Your task to perform on an android device: toggle wifi Image 0: 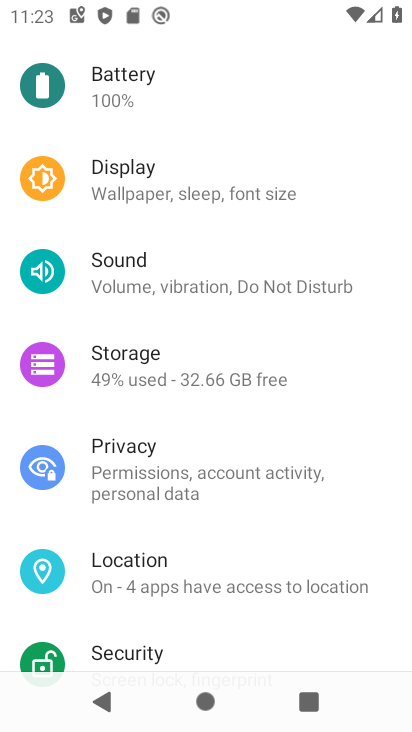
Step 0: drag from (233, 268) to (239, 508)
Your task to perform on an android device: toggle wifi Image 1: 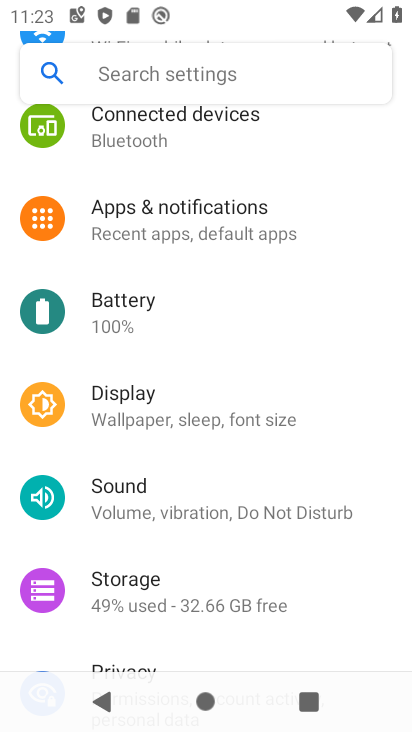
Step 1: drag from (219, 209) to (238, 492)
Your task to perform on an android device: toggle wifi Image 2: 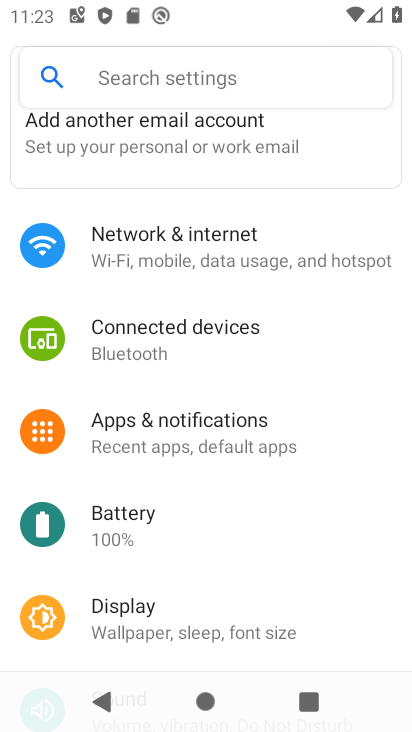
Step 2: click (232, 255)
Your task to perform on an android device: toggle wifi Image 3: 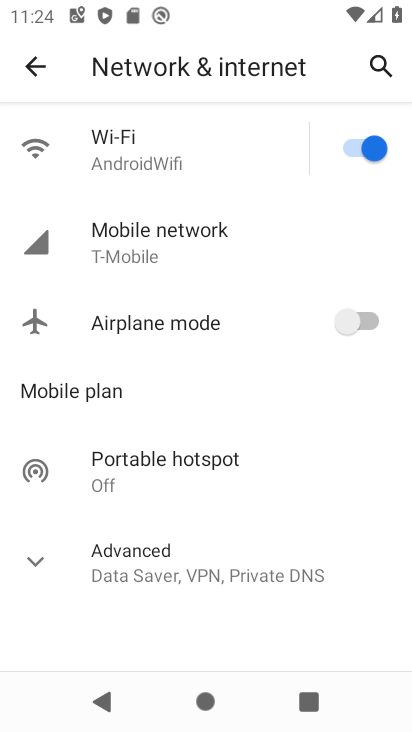
Step 3: click (364, 148)
Your task to perform on an android device: toggle wifi Image 4: 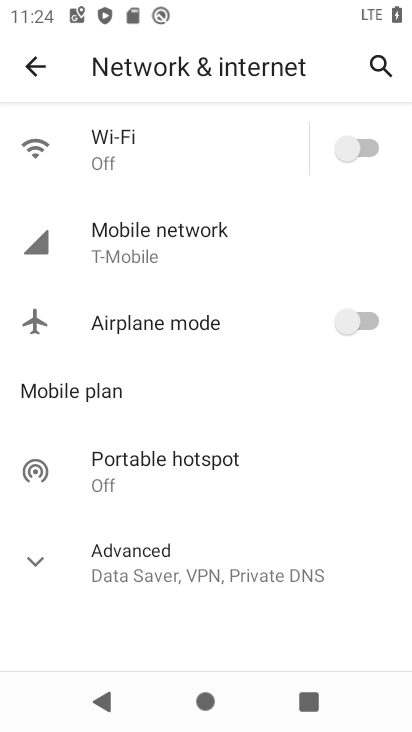
Step 4: task complete